Your task to perform on an android device: View the shopping cart on amazon.com. Add asus zenbook to the cart on amazon.com Image 0: 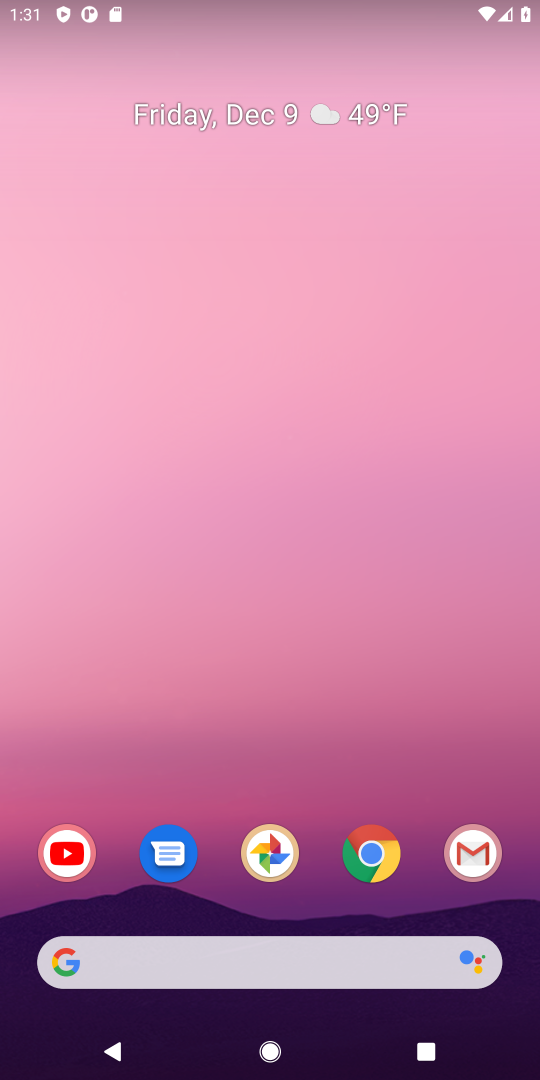
Step 0: drag from (264, 840) to (351, 164)
Your task to perform on an android device: View the shopping cart on amazon.com. Add asus zenbook to the cart on amazon.com Image 1: 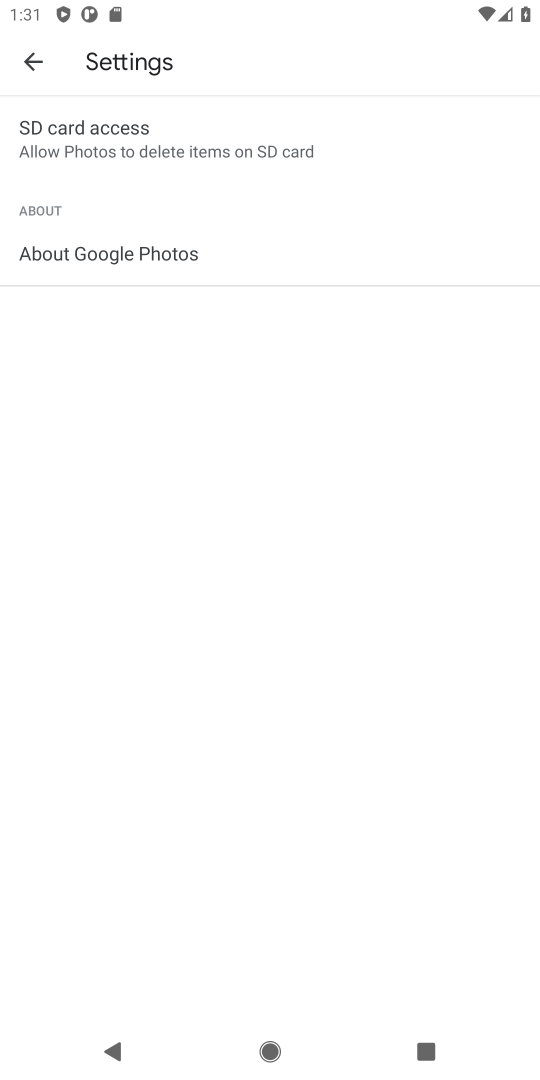
Step 1: press home button
Your task to perform on an android device: View the shopping cart on amazon.com. Add asus zenbook to the cart on amazon.com Image 2: 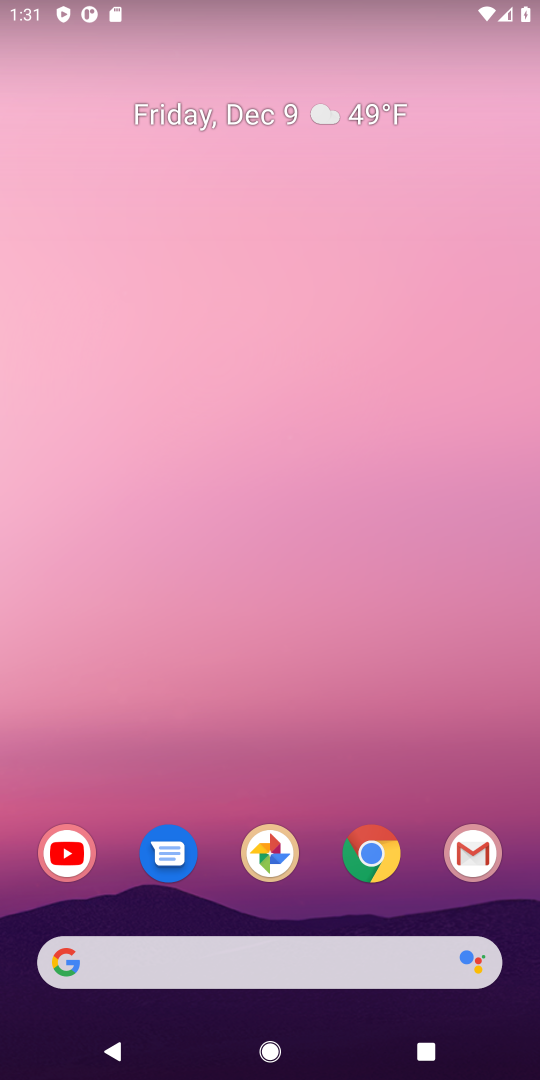
Step 2: drag from (276, 905) to (329, 162)
Your task to perform on an android device: View the shopping cart on amazon.com. Add asus zenbook to the cart on amazon.com Image 3: 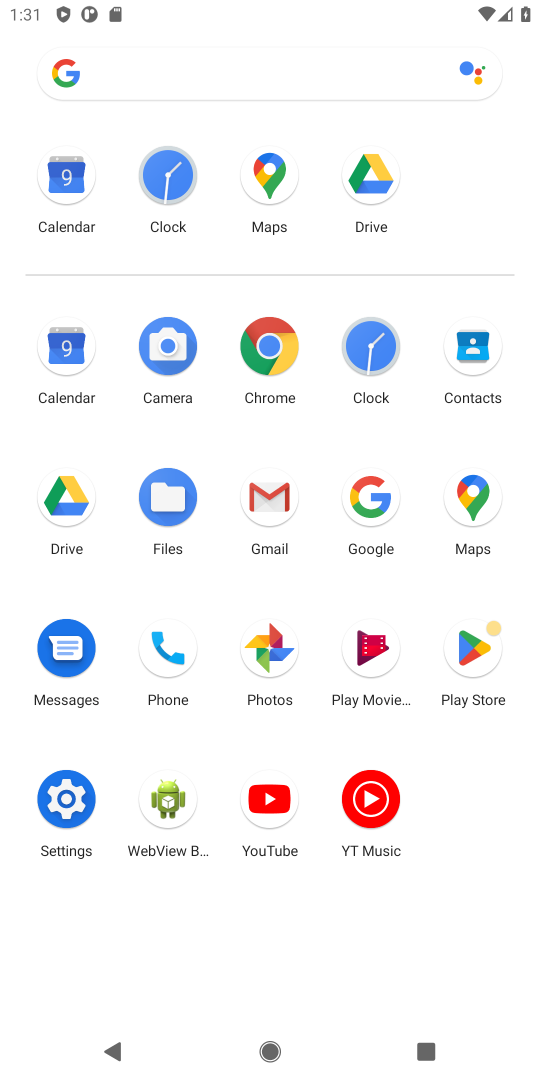
Step 3: click (377, 491)
Your task to perform on an android device: View the shopping cart on amazon.com. Add asus zenbook to the cart on amazon.com Image 4: 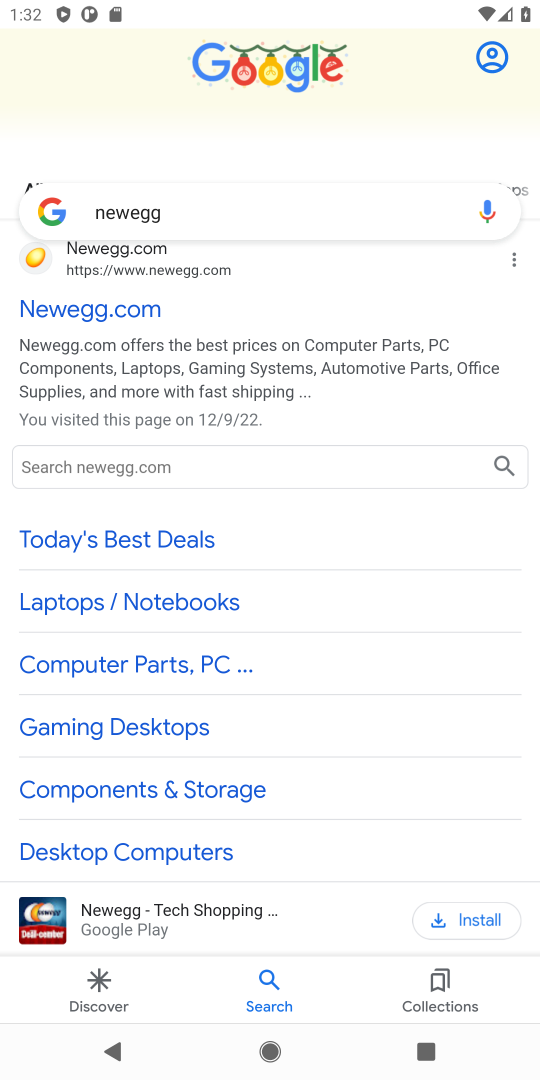
Step 4: click (157, 208)
Your task to perform on an android device: View the shopping cart on amazon.com. Add asus zenbook to the cart on amazon.com Image 5: 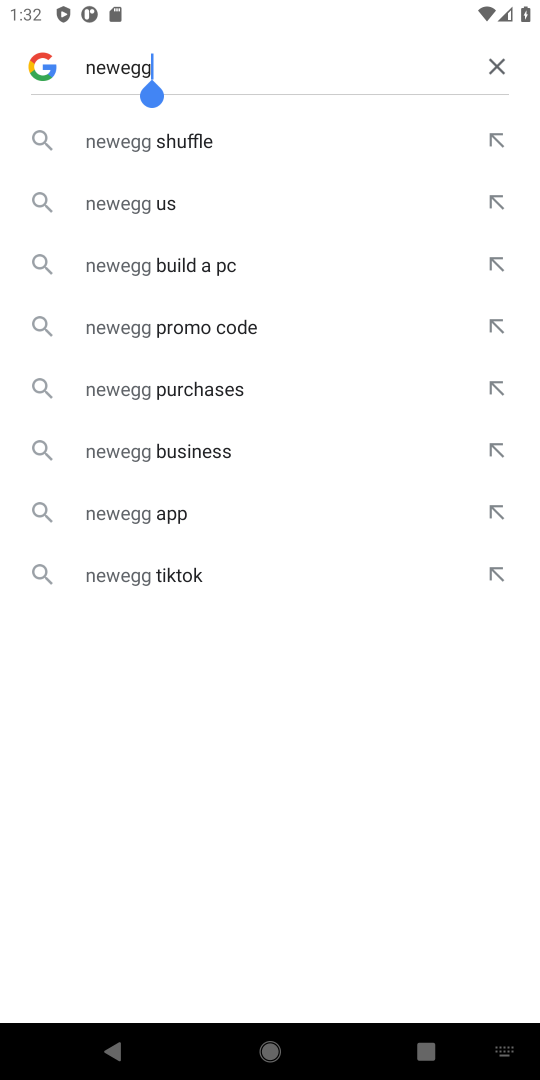
Step 5: click (490, 64)
Your task to perform on an android device: View the shopping cart on amazon.com. Add asus zenbook to the cart on amazon.com Image 6: 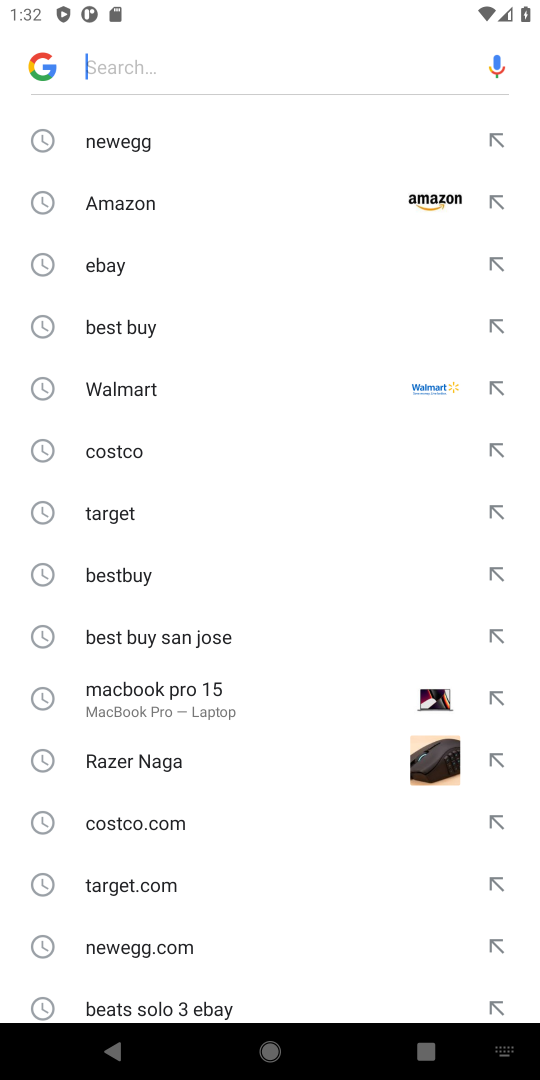
Step 6: click (109, 195)
Your task to perform on an android device: View the shopping cart on amazon.com. Add asus zenbook to the cart on amazon.com Image 7: 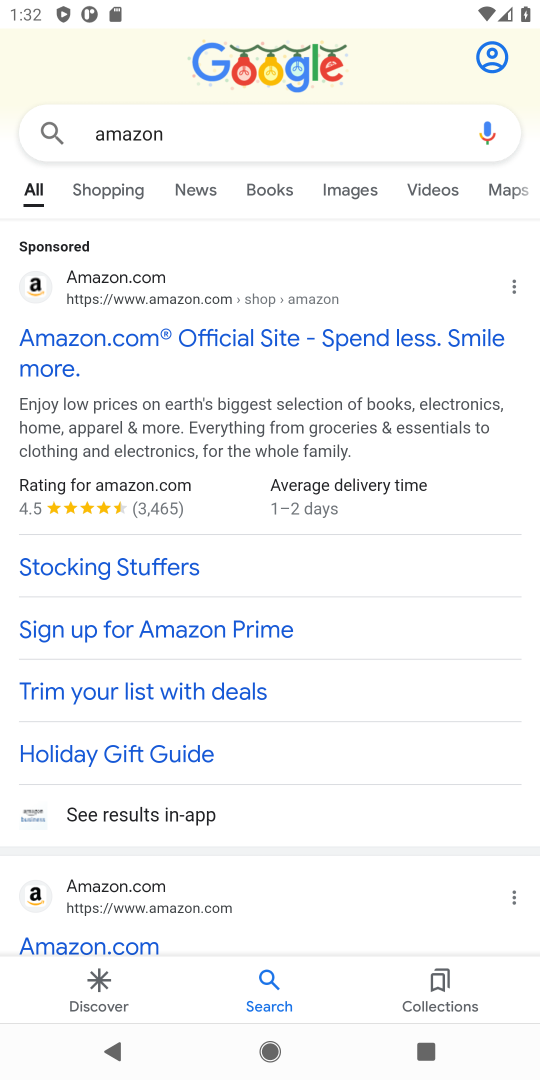
Step 7: click (139, 352)
Your task to perform on an android device: View the shopping cart on amazon.com. Add asus zenbook to the cart on amazon.com Image 8: 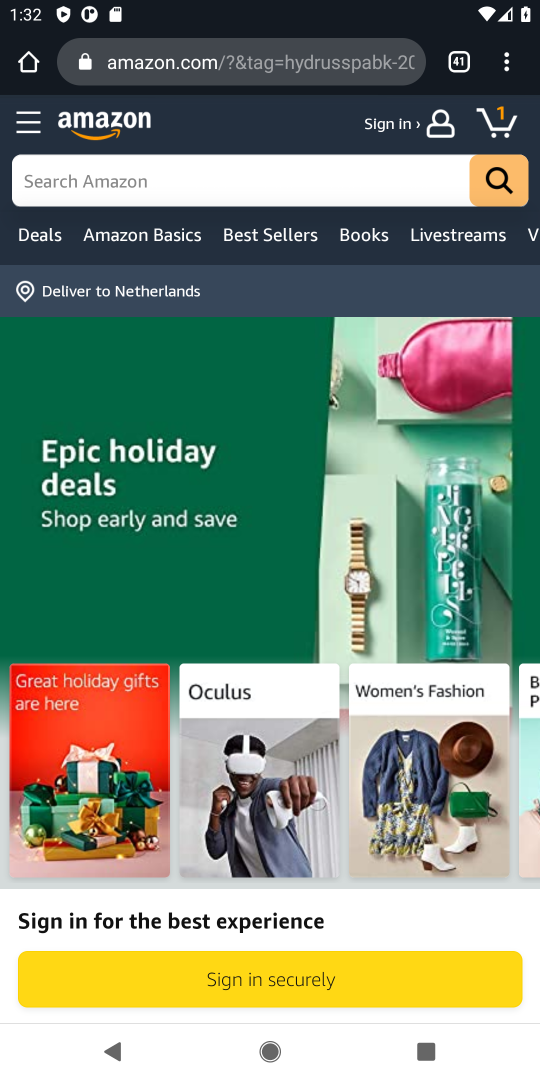
Step 8: click (125, 164)
Your task to perform on an android device: View the shopping cart on amazon.com. Add asus zenbook to the cart on amazon.com Image 9: 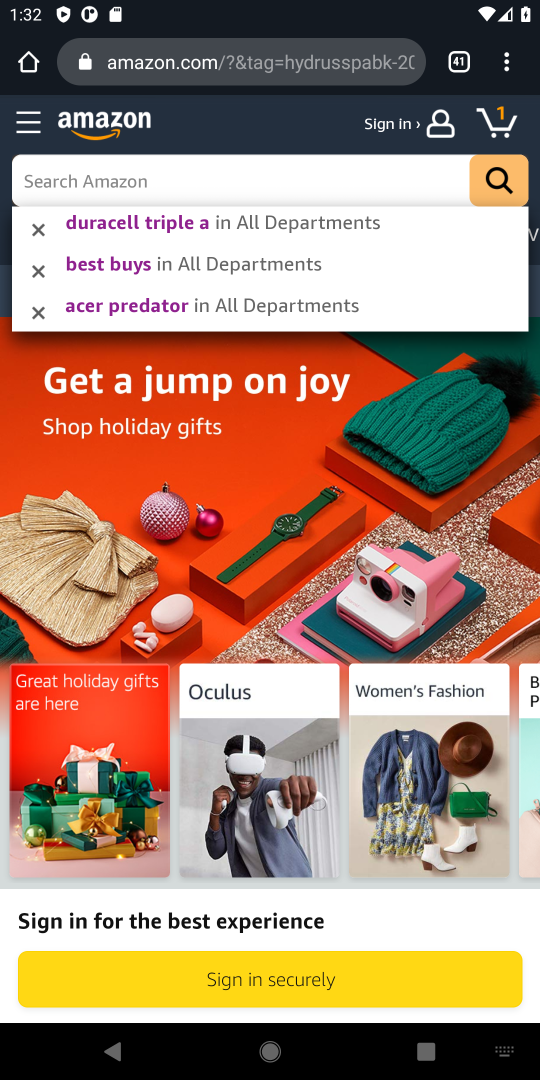
Step 9: click (497, 108)
Your task to perform on an android device: View the shopping cart on amazon.com. Add asus zenbook to the cart on amazon.com Image 10: 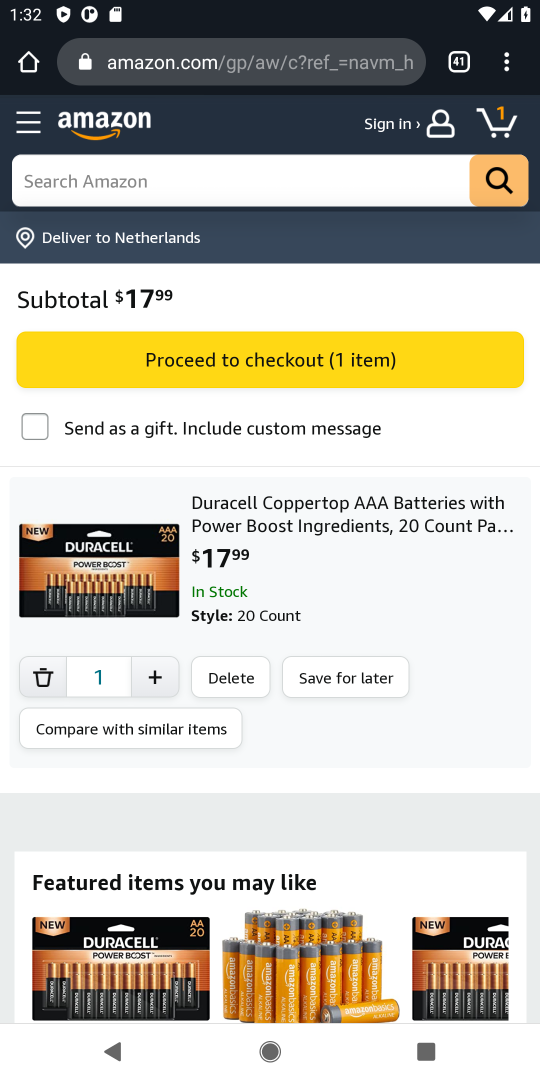
Step 10: click (174, 178)
Your task to perform on an android device: View the shopping cart on amazon.com. Add asus zenbook to the cart on amazon.com Image 11: 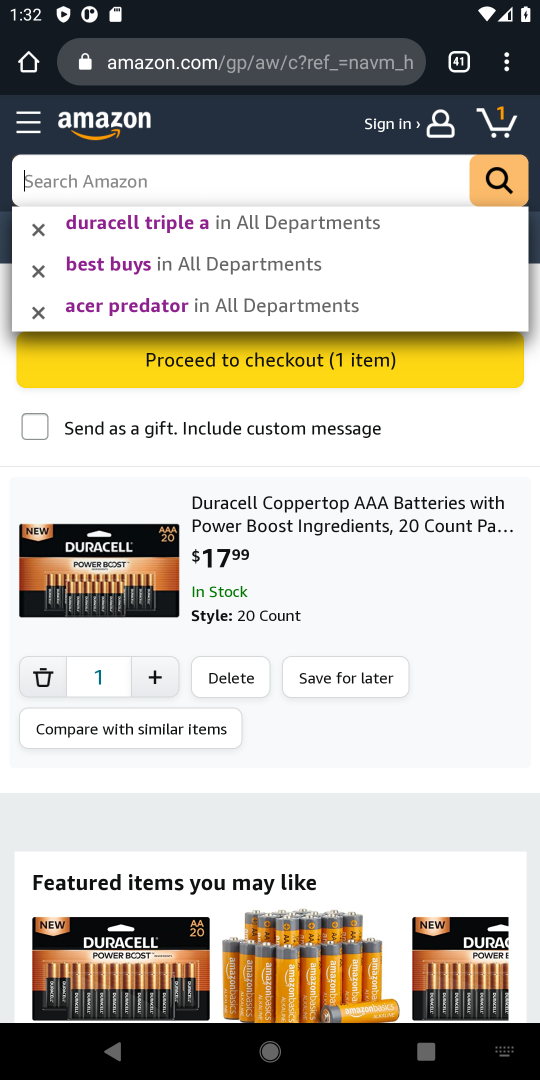
Step 11: type "asus zenbook"
Your task to perform on an android device: View the shopping cart on amazon.com. Add asus zenbook to the cart on amazon.com Image 12: 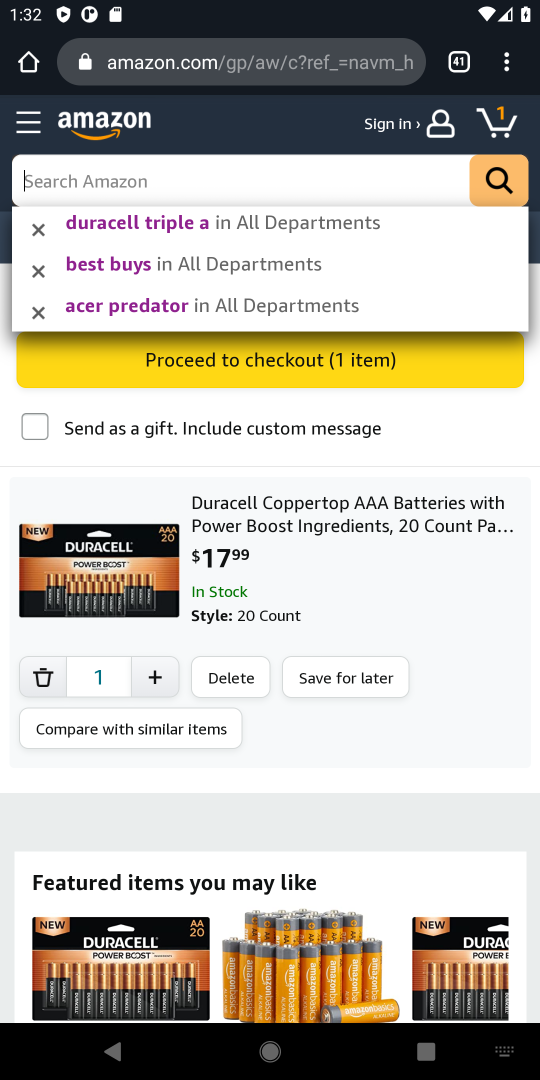
Step 12: click (493, 170)
Your task to perform on an android device: View the shopping cart on amazon.com. Add asus zenbook to the cart on amazon.com Image 13: 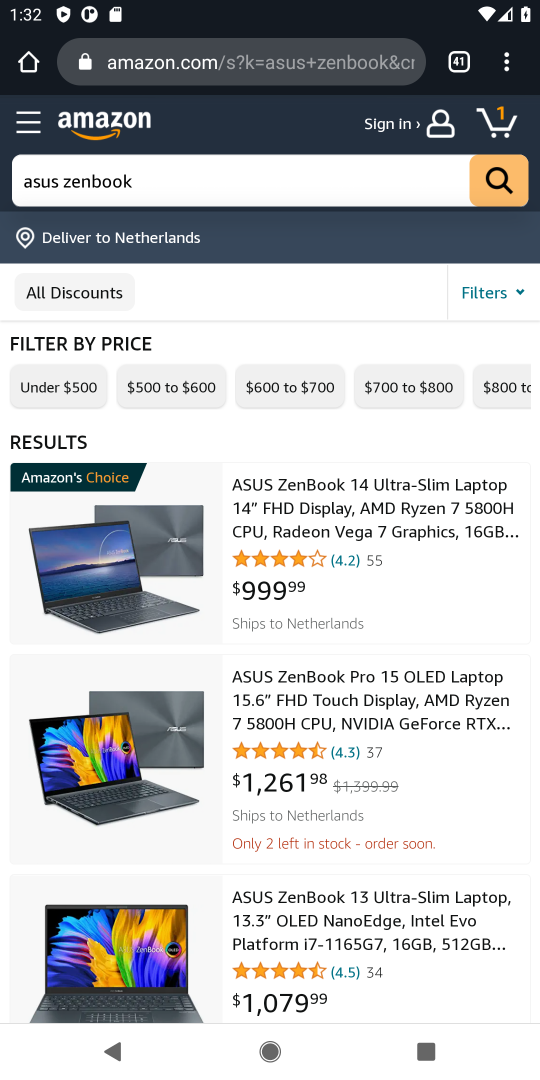
Step 13: click (343, 501)
Your task to perform on an android device: View the shopping cart on amazon.com. Add asus zenbook to the cart on amazon.com Image 14: 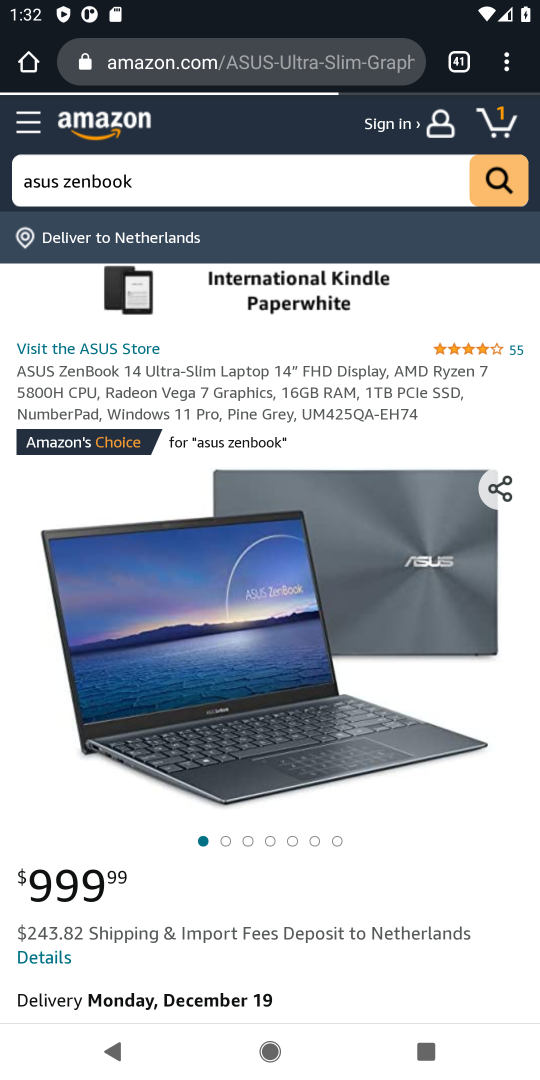
Step 14: drag from (357, 835) to (364, 377)
Your task to perform on an android device: View the shopping cart on amazon.com. Add asus zenbook to the cart on amazon.com Image 15: 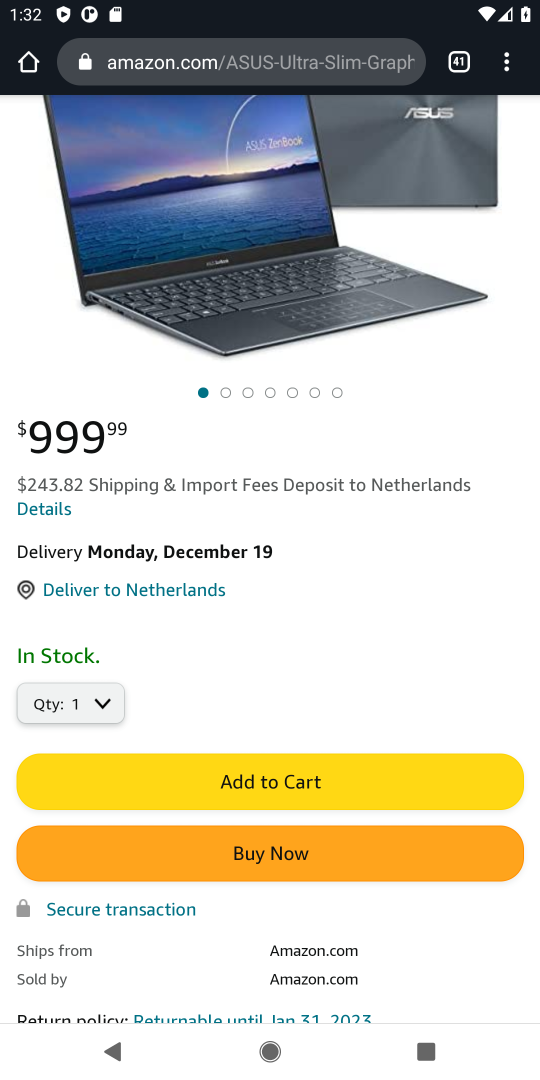
Step 15: click (298, 781)
Your task to perform on an android device: View the shopping cart on amazon.com. Add asus zenbook to the cart on amazon.com Image 16: 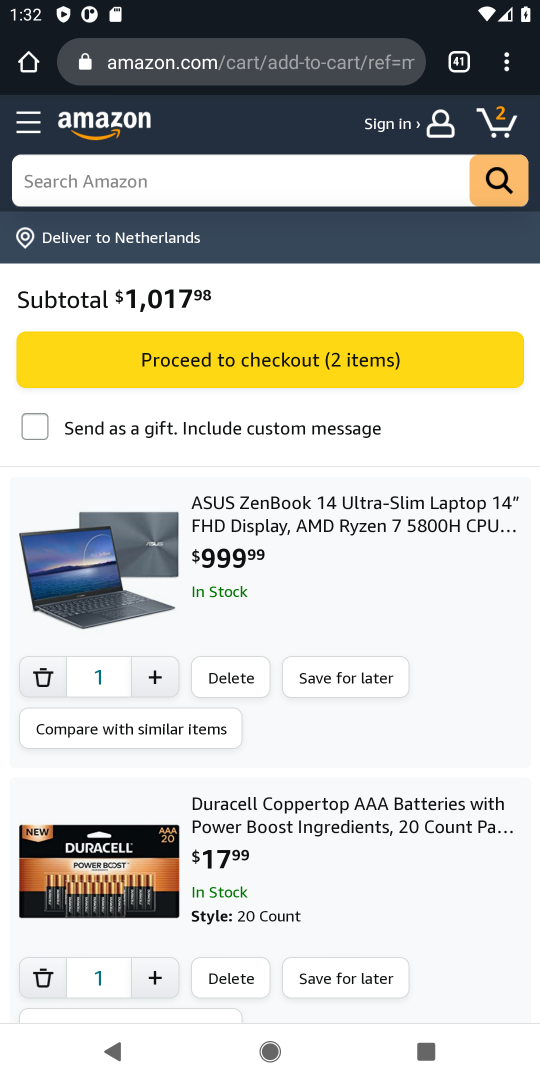
Step 16: task complete